Your task to perform on an android device: Do I have any events tomorrow? Image 0: 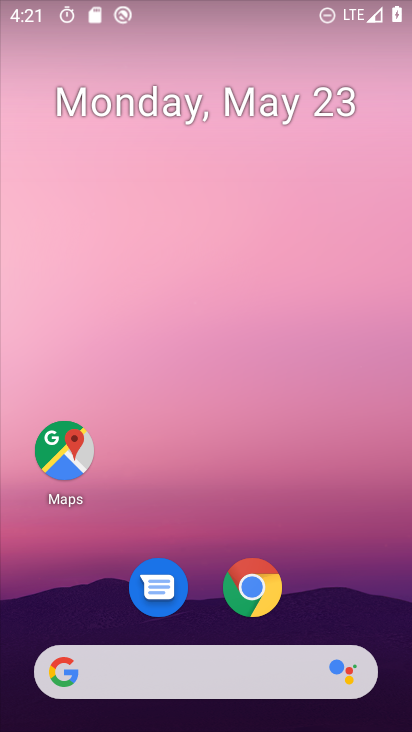
Step 0: drag from (214, 615) to (237, 2)
Your task to perform on an android device: Do I have any events tomorrow? Image 1: 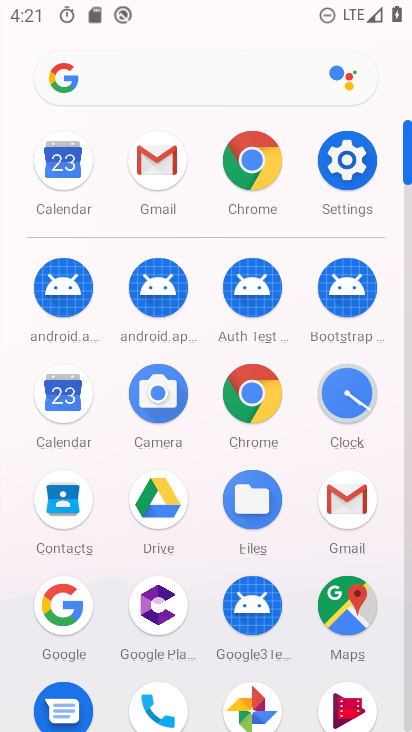
Step 1: click (63, 399)
Your task to perform on an android device: Do I have any events tomorrow? Image 2: 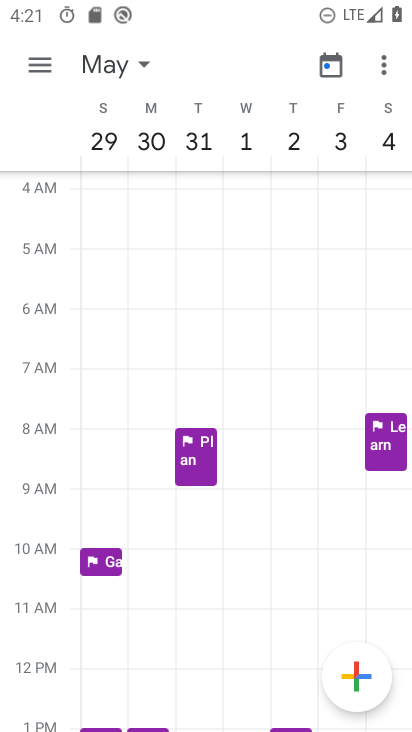
Step 2: click (43, 64)
Your task to perform on an android device: Do I have any events tomorrow? Image 3: 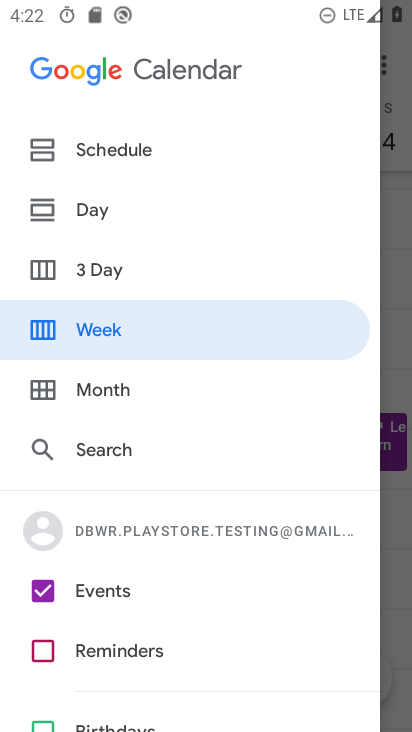
Step 3: drag from (182, 658) to (211, 328)
Your task to perform on an android device: Do I have any events tomorrow? Image 4: 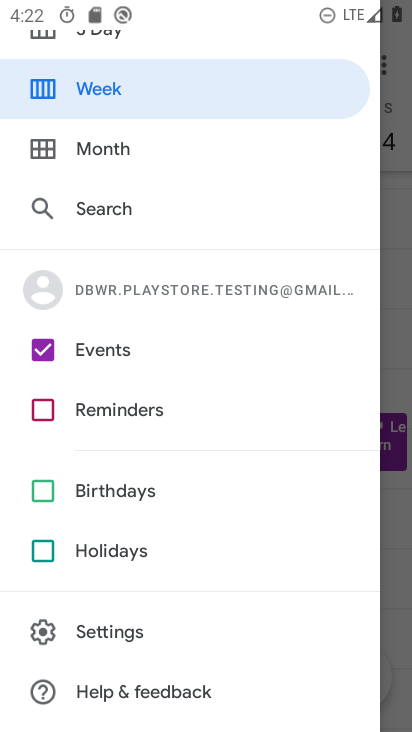
Step 4: drag from (128, 220) to (123, 668)
Your task to perform on an android device: Do I have any events tomorrow? Image 5: 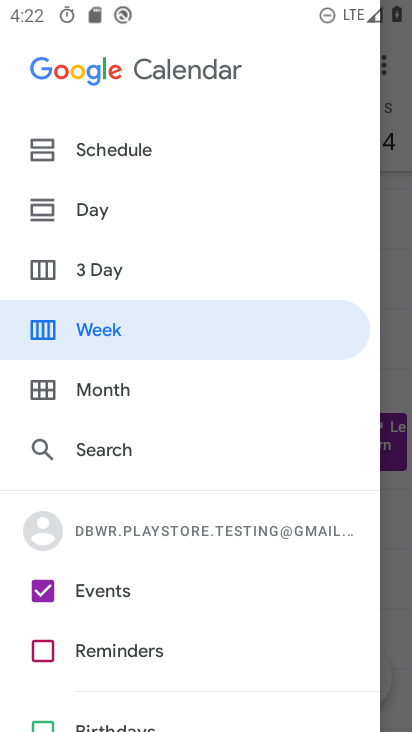
Step 5: click (114, 270)
Your task to perform on an android device: Do I have any events tomorrow? Image 6: 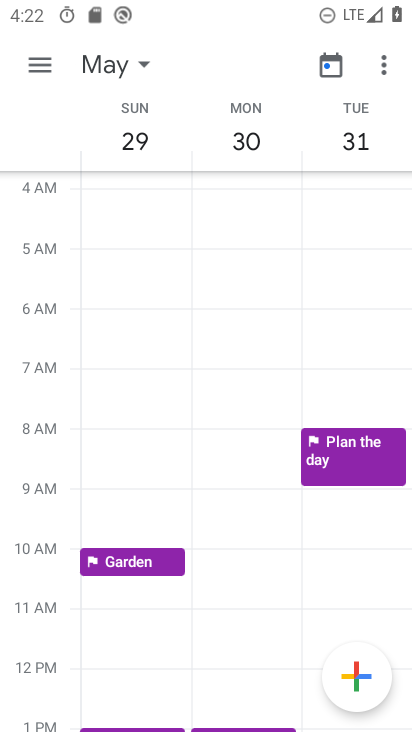
Step 6: task complete